Your task to perform on an android device: move an email to a new category in the gmail app Image 0: 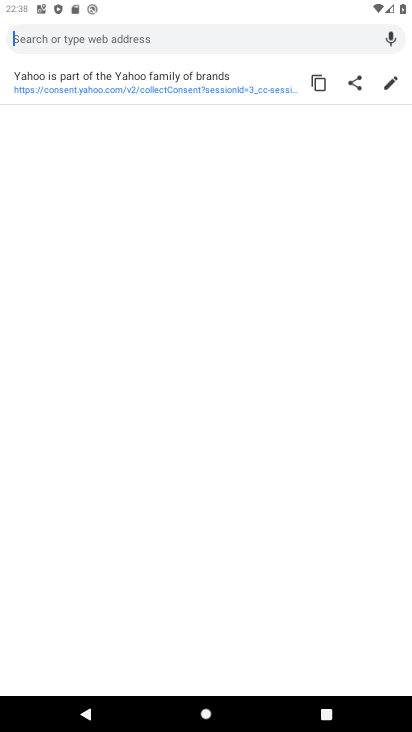
Step 0: press home button
Your task to perform on an android device: move an email to a new category in the gmail app Image 1: 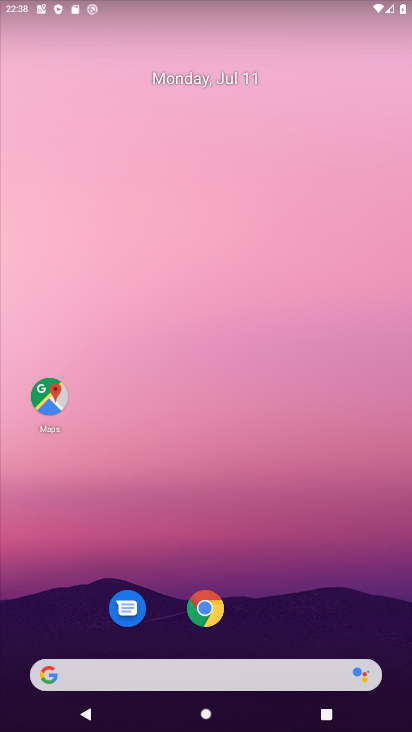
Step 1: drag from (42, 705) to (171, 117)
Your task to perform on an android device: move an email to a new category in the gmail app Image 2: 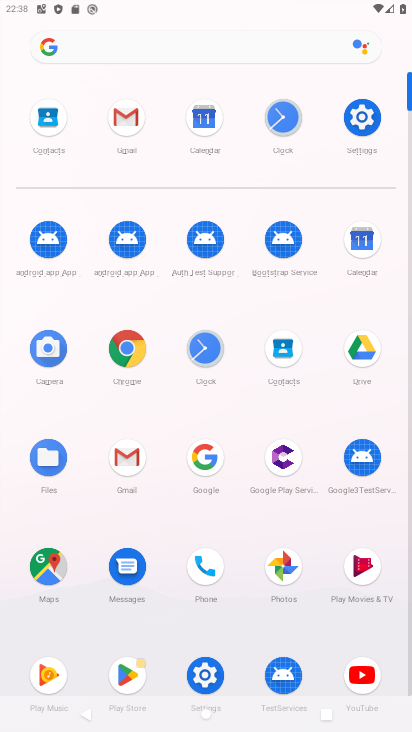
Step 2: click (139, 475)
Your task to perform on an android device: move an email to a new category in the gmail app Image 3: 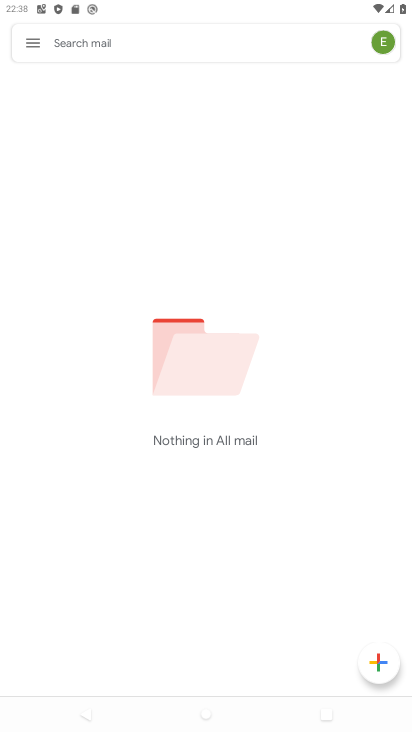
Step 3: click (24, 33)
Your task to perform on an android device: move an email to a new category in the gmail app Image 4: 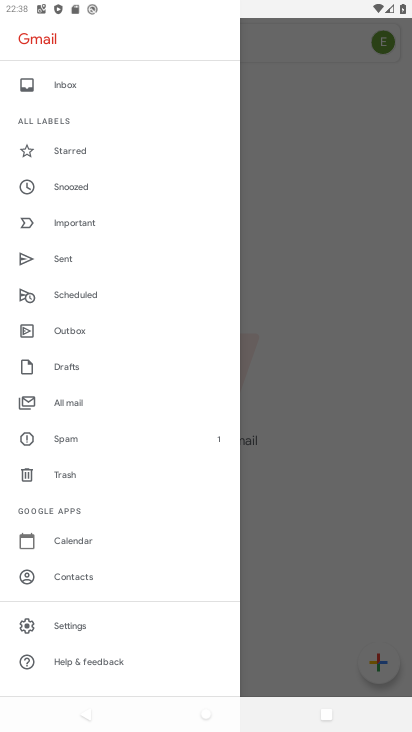
Step 4: click (82, 98)
Your task to perform on an android device: move an email to a new category in the gmail app Image 5: 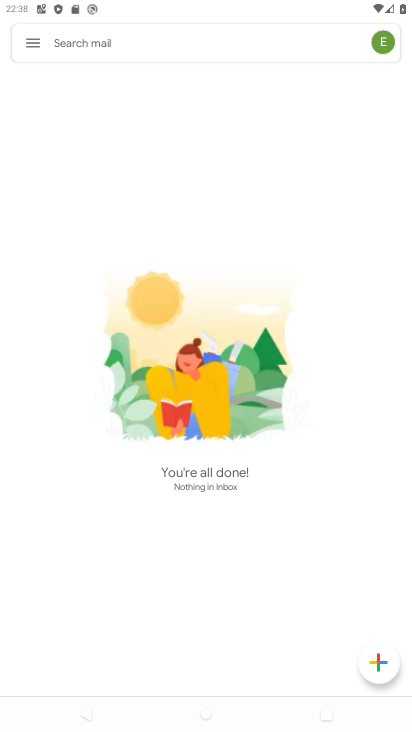
Step 5: task complete